Your task to perform on an android device: open app "The Home Depot" (install if not already installed), go to login, and select forgot password Image 0: 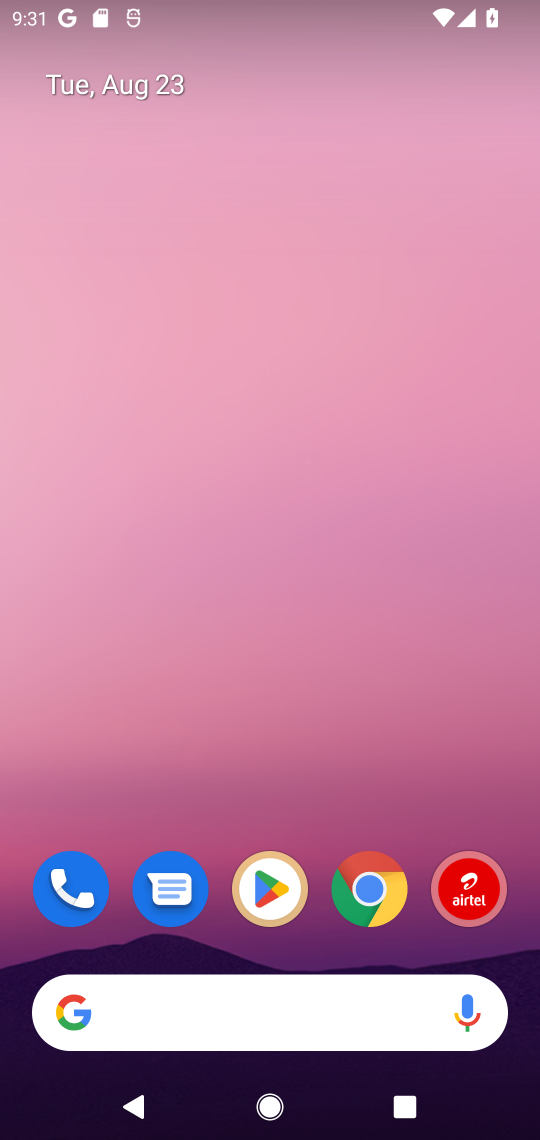
Step 0: click (257, 890)
Your task to perform on an android device: open app "The Home Depot" (install if not already installed), go to login, and select forgot password Image 1: 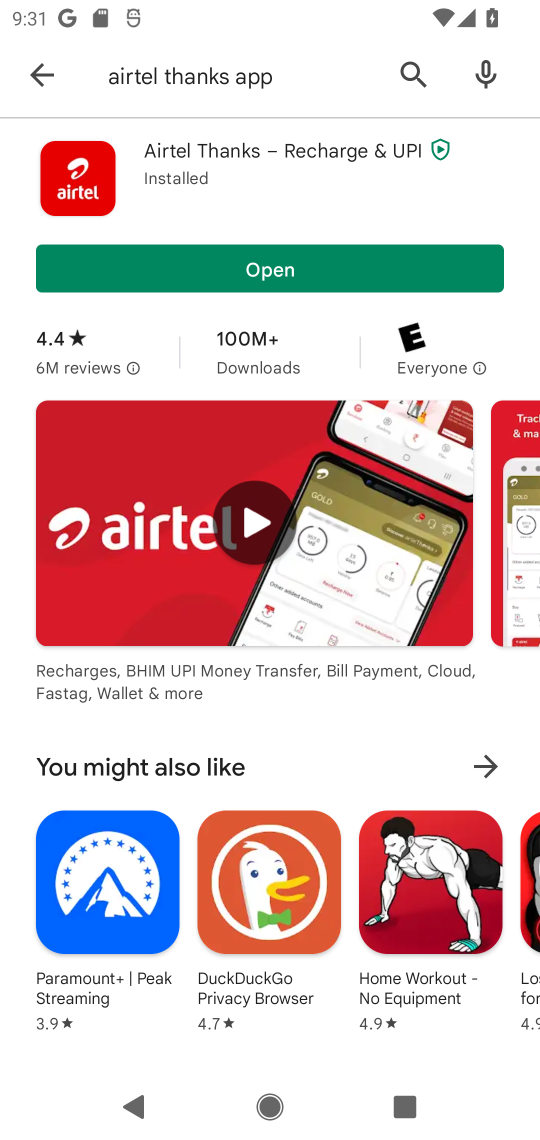
Step 1: click (40, 84)
Your task to perform on an android device: open app "The Home Depot" (install if not already installed), go to login, and select forgot password Image 2: 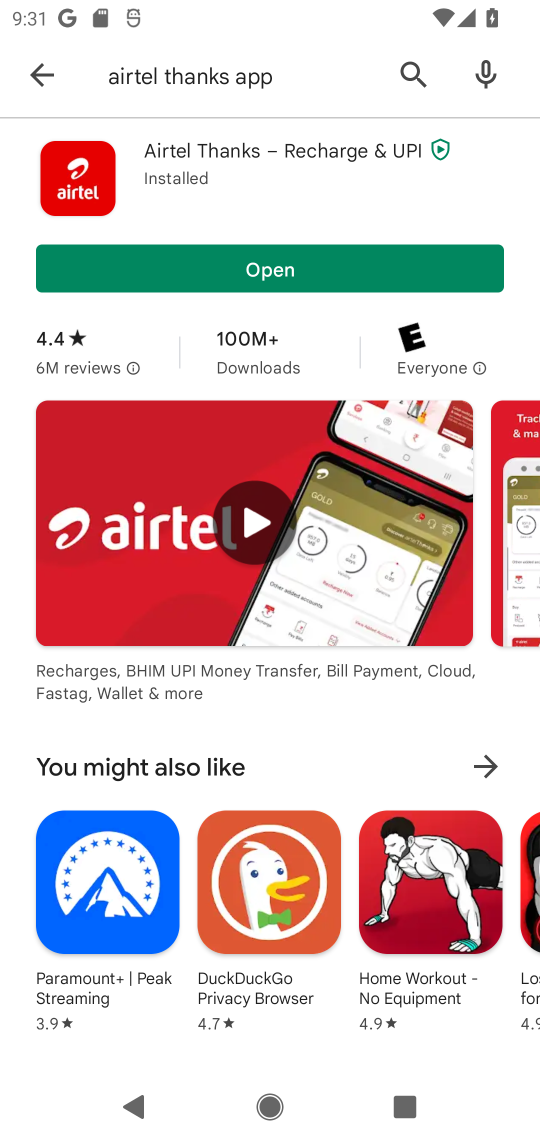
Step 2: click (40, 84)
Your task to perform on an android device: open app "The Home Depot" (install if not already installed), go to login, and select forgot password Image 3: 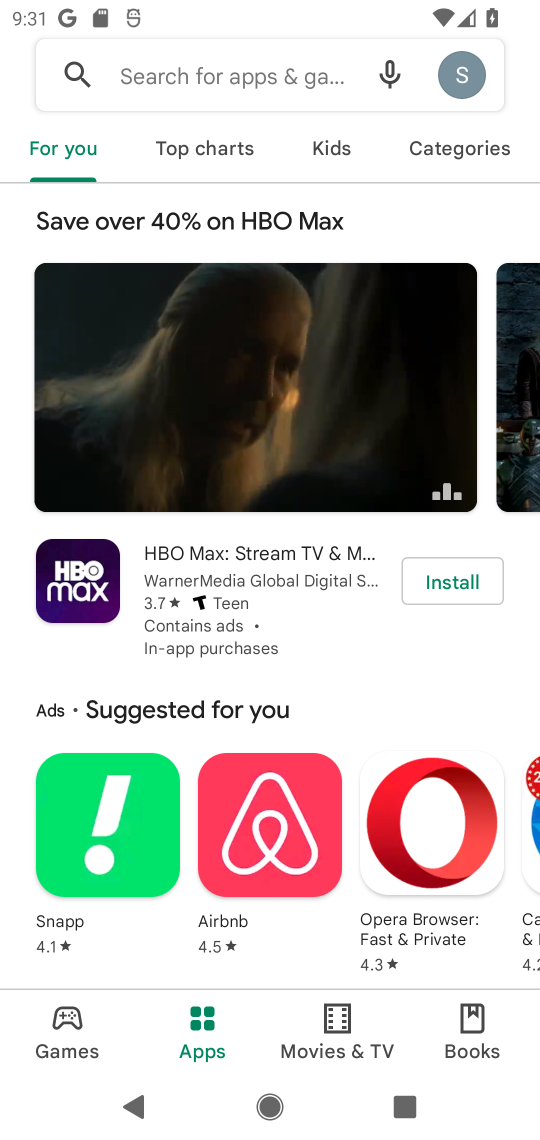
Step 3: click (209, 66)
Your task to perform on an android device: open app "The Home Depot" (install if not already installed), go to login, and select forgot password Image 4: 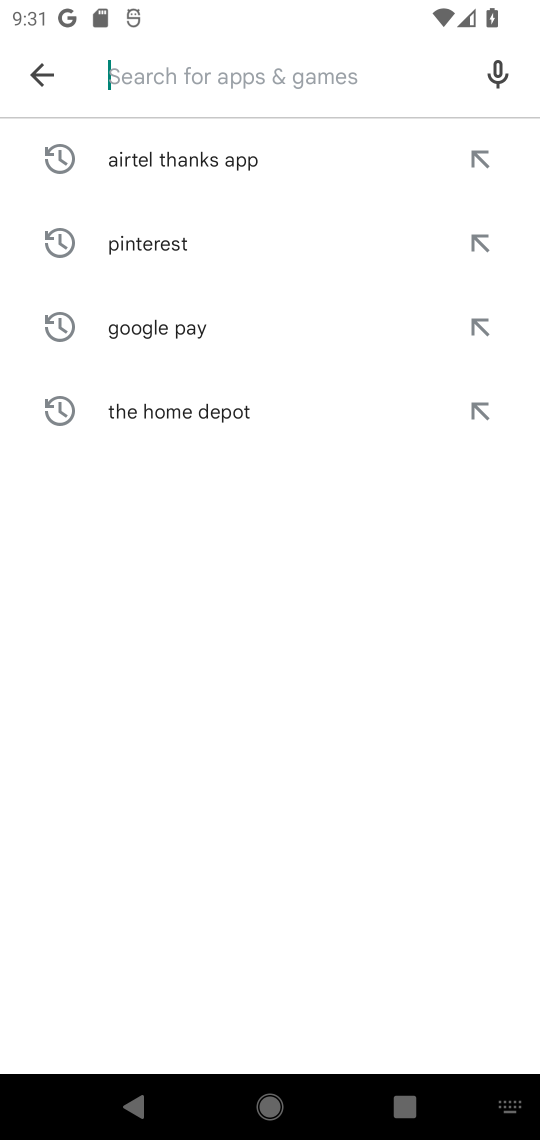
Step 4: type "The Home Depot"
Your task to perform on an android device: open app "The Home Depot" (install if not already installed), go to login, and select forgot password Image 5: 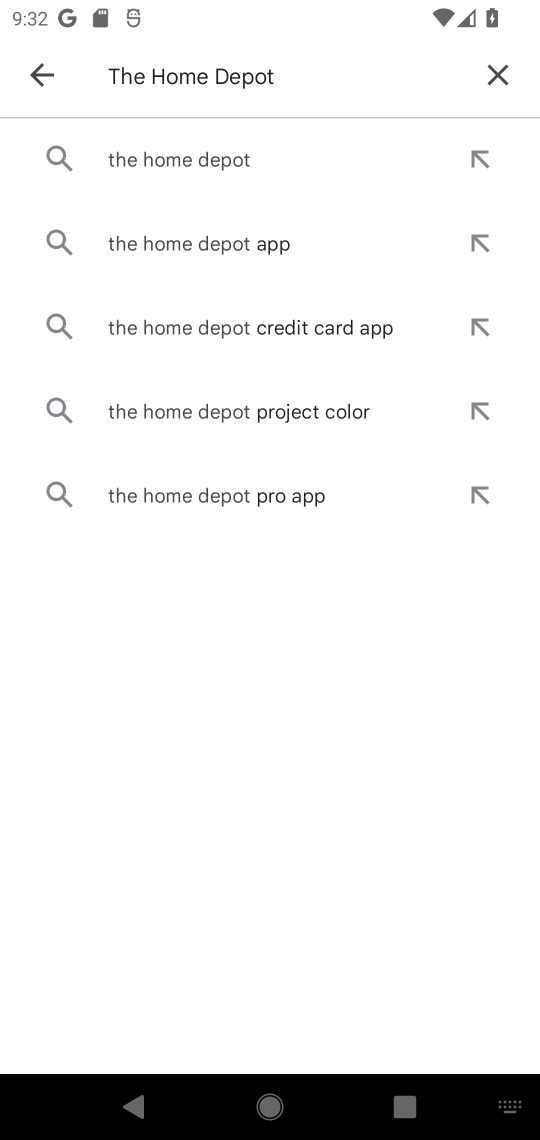
Step 5: click (169, 160)
Your task to perform on an android device: open app "The Home Depot" (install if not already installed), go to login, and select forgot password Image 6: 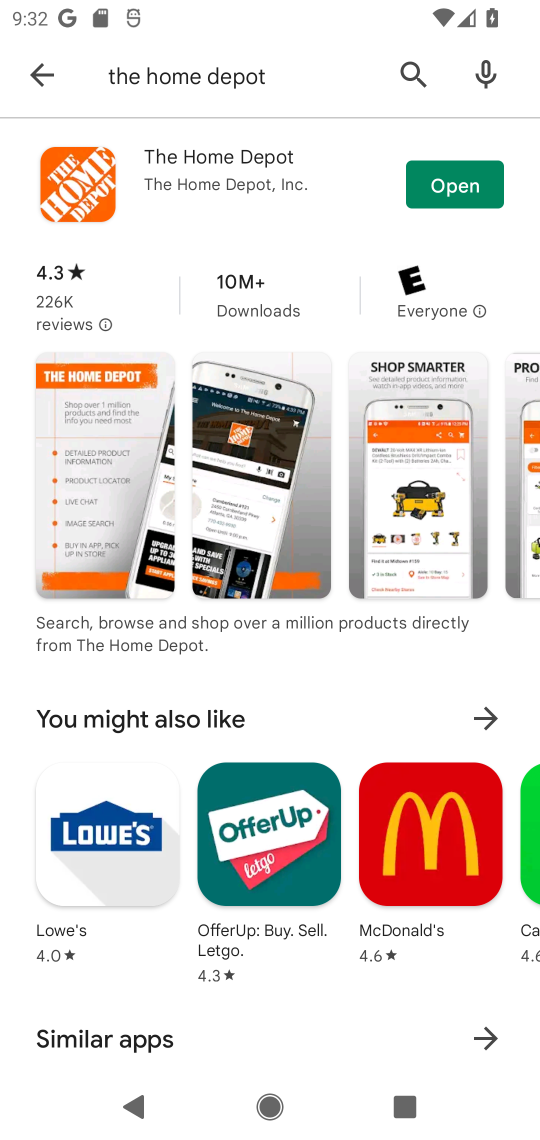
Step 6: click (485, 180)
Your task to perform on an android device: open app "The Home Depot" (install if not already installed), go to login, and select forgot password Image 7: 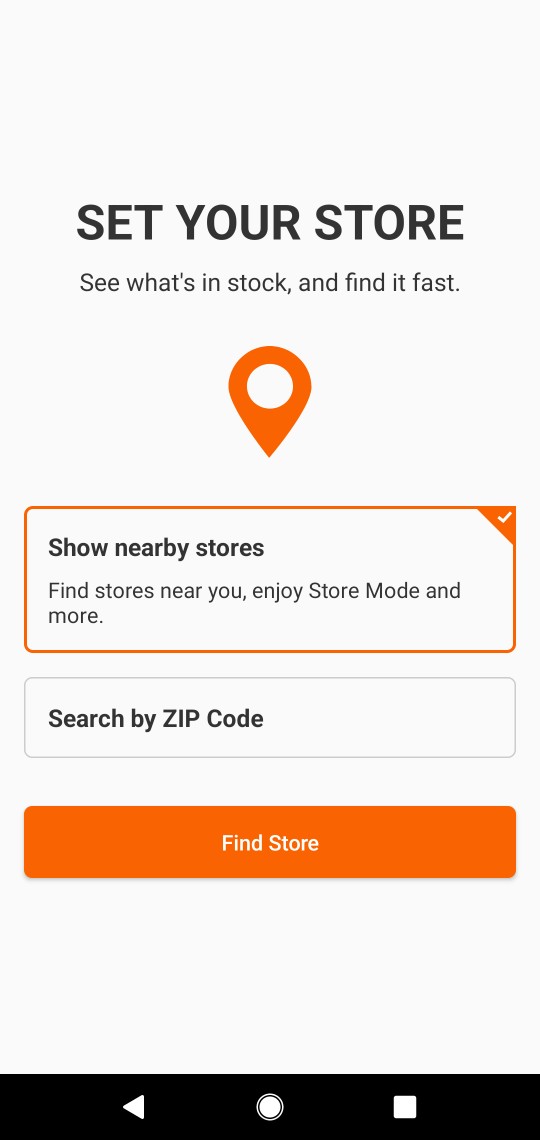
Step 7: task complete